Your task to perform on an android device: Open settings on Google Maps Image 0: 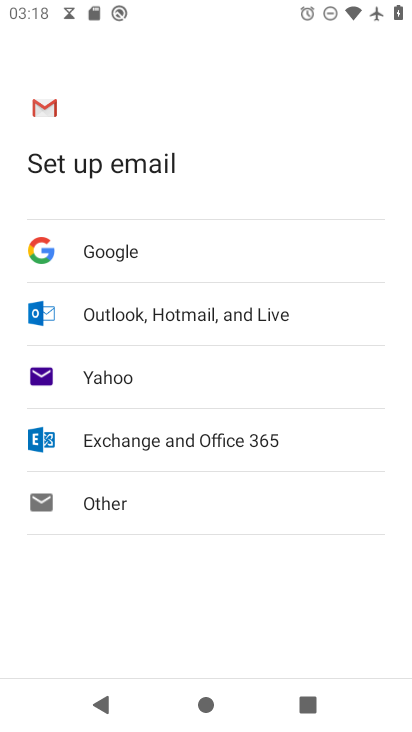
Step 0: press home button
Your task to perform on an android device: Open settings on Google Maps Image 1: 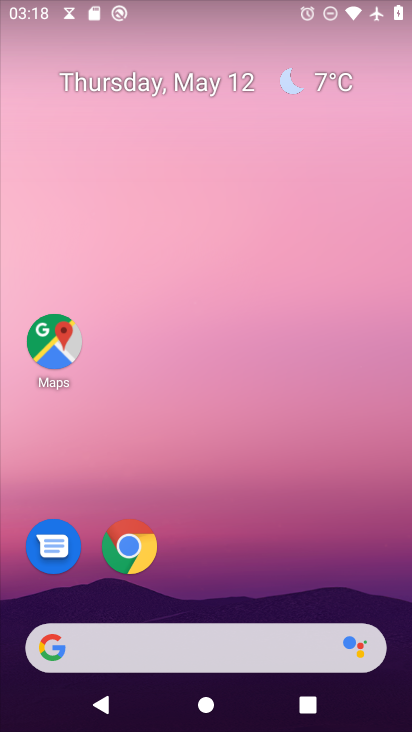
Step 1: drag from (184, 645) to (309, 175)
Your task to perform on an android device: Open settings on Google Maps Image 2: 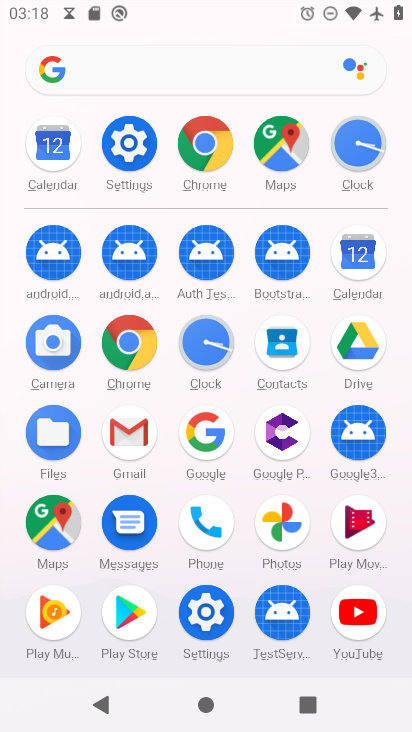
Step 2: click (52, 540)
Your task to perform on an android device: Open settings on Google Maps Image 3: 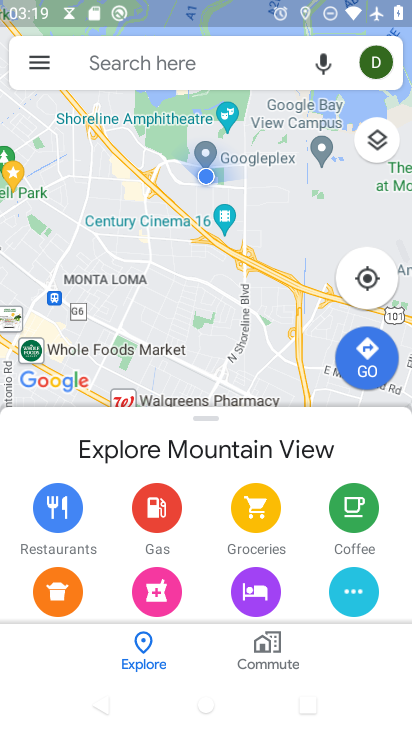
Step 3: click (36, 61)
Your task to perform on an android device: Open settings on Google Maps Image 4: 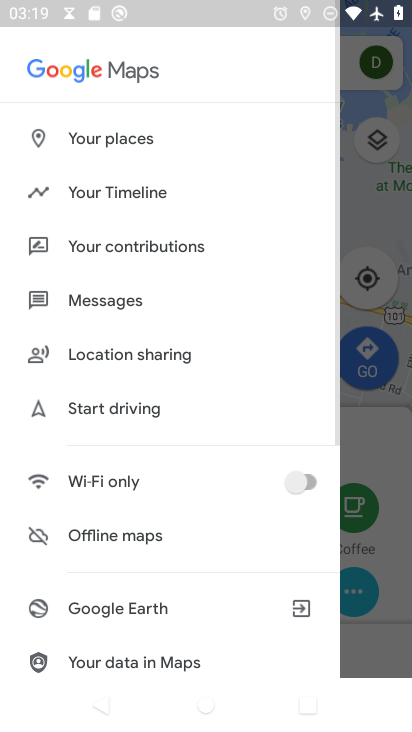
Step 4: drag from (131, 627) to (260, 176)
Your task to perform on an android device: Open settings on Google Maps Image 5: 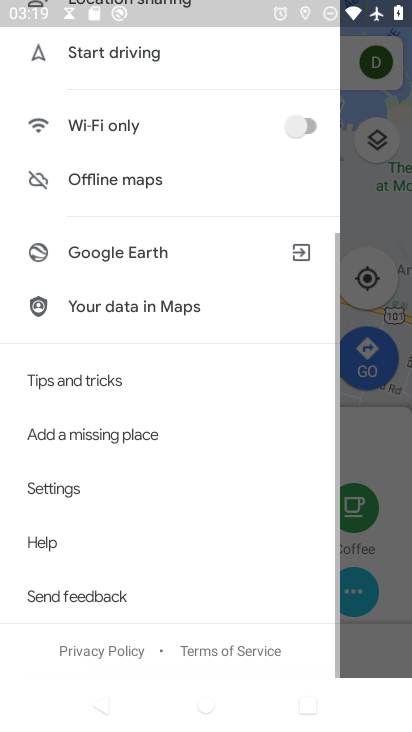
Step 5: click (42, 487)
Your task to perform on an android device: Open settings on Google Maps Image 6: 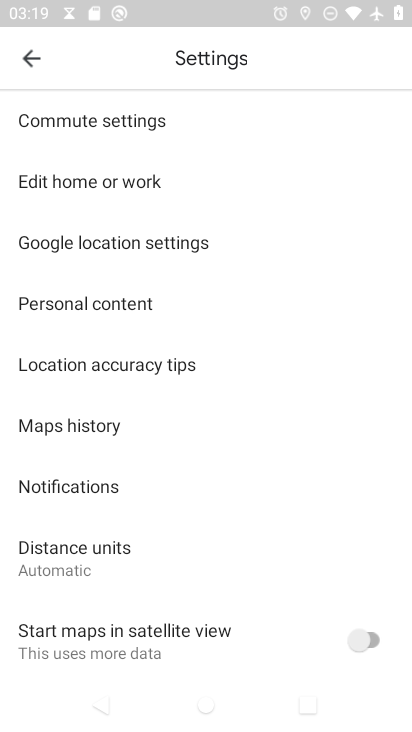
Step 6: task complete